Your task to perform on an android device: Open Android settings Image 0: 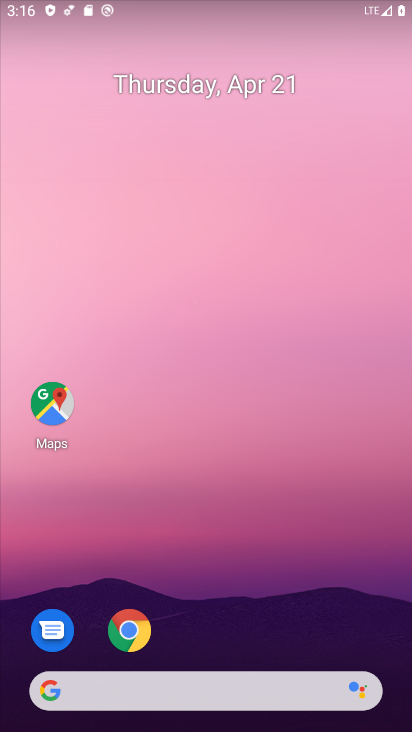
Step 0: drag from (243, 699) to (196, 330)
Your task to perform on an android device: Open Android settings Image 1: 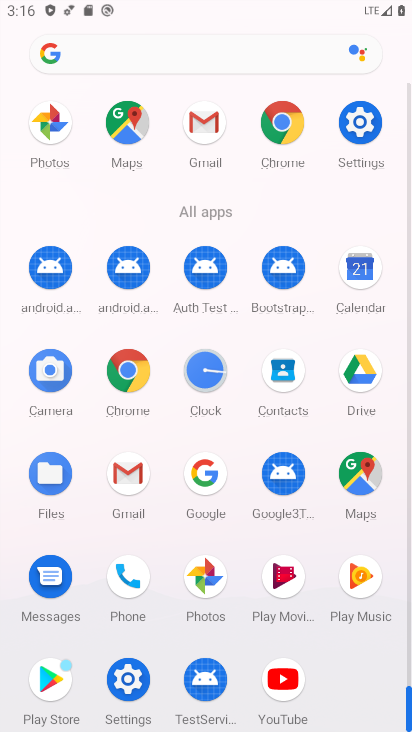
Step 1: click (130, 698)
Your task to perform on an android device: Open Android settings Image 2: 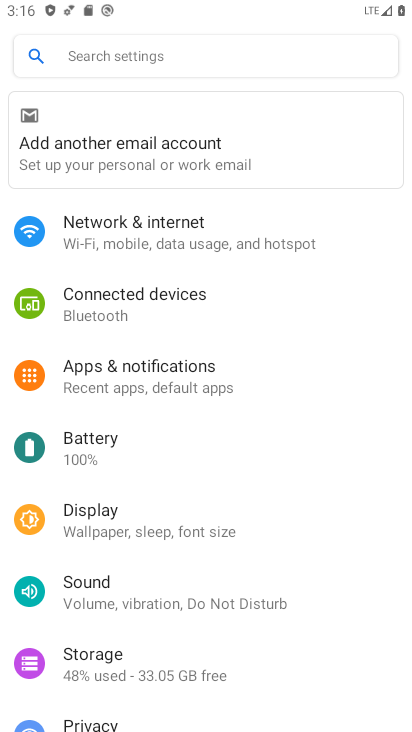
Step 2: drag from (102, 613) to (202, 257)
Your task to perform on an android device: Open Android settings Image 3: 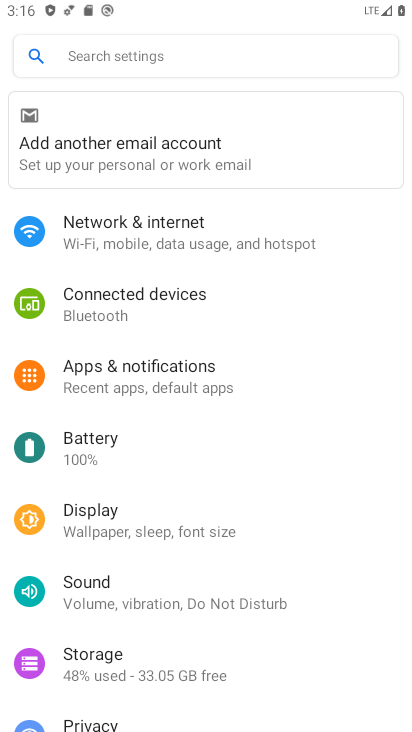
Step 3: drag from (124, 606) to (173, 273)
Your task to perform on an android device: Open Android settings Image 4: 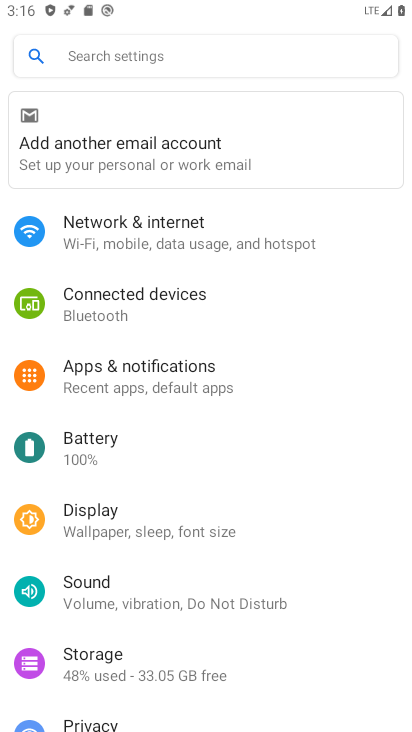
Step 4: drag from (145, 573) to (127, 321)
Your task to perform on an android device: Open Android settings Image 5: 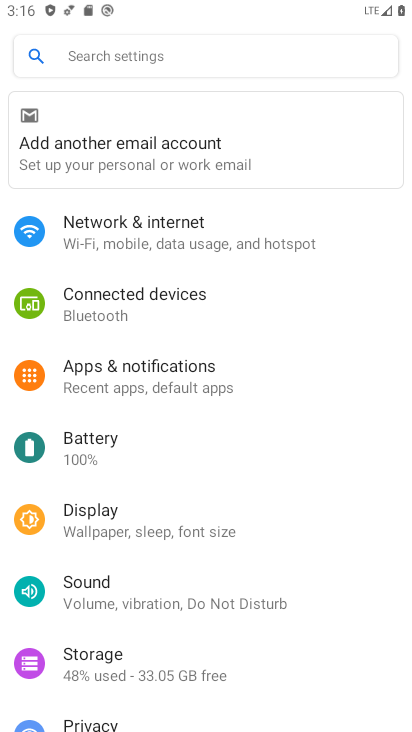
Step 5: drag from (160, 565) to (187, 307)
Your task to perform on an android device: Open Android settings Image 6: 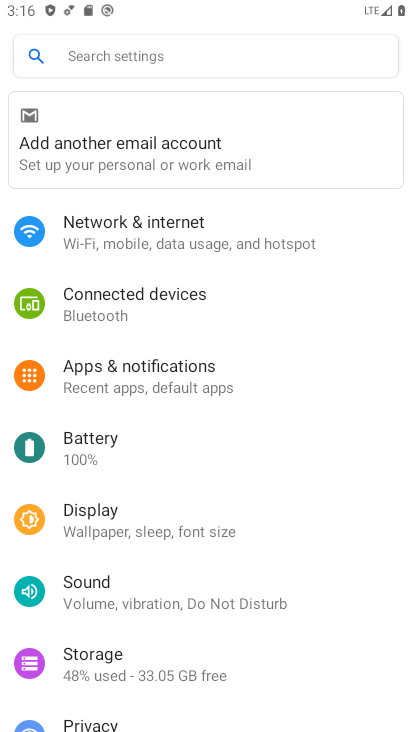
Step 6: drag from (200, 700) to (227, 440)
Your task to perform on an android device: Open Android settings Image 7: 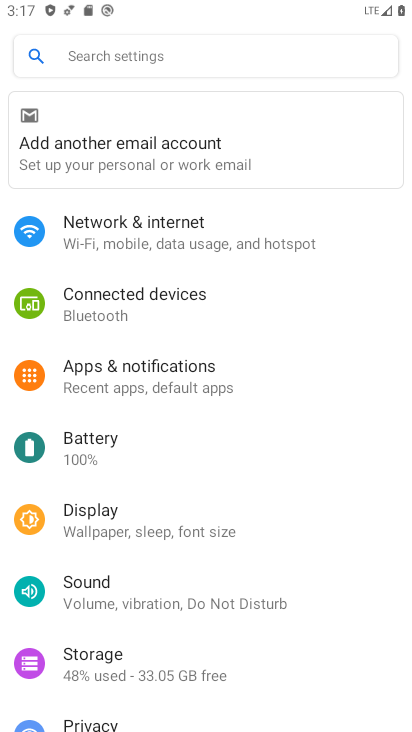
Step 7: drag from (236, 621) to (274, 193)
Your task to perform on an android device: Open Android settings Image 8: 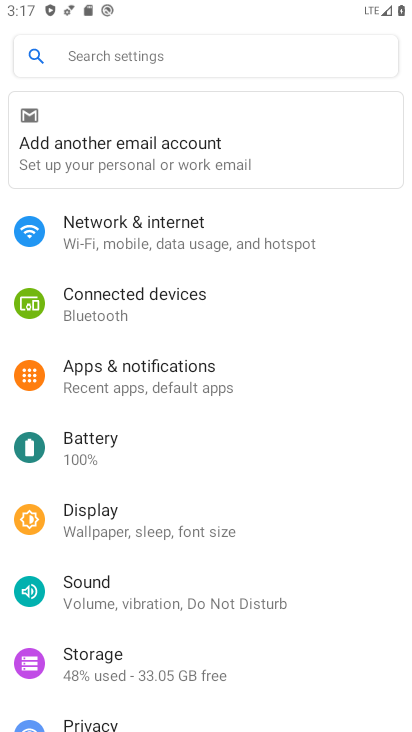
Step 8: drag from (349, 568) to (330, 186)
Your task to perform on an android device: Open Android settings Image 9: 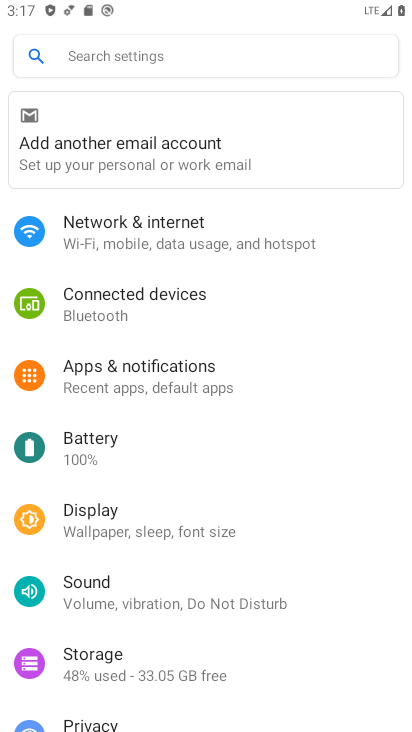
Step 9: click (313, 64)
Your task to perform on an android device: Open Android settings Image 10: 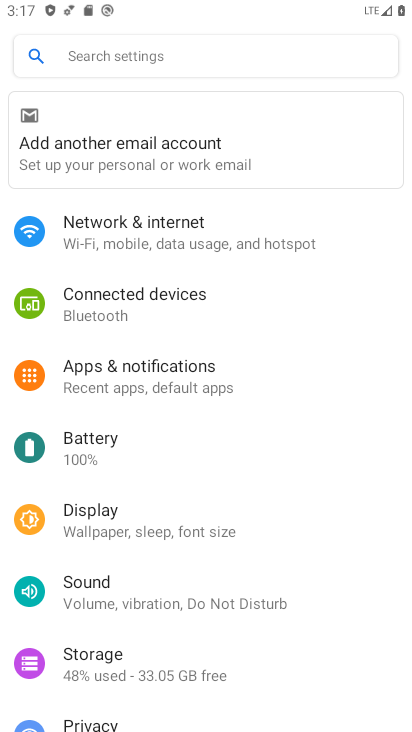
Step 10: drag from (205, 554) to (250, 150)
Your task to perform on an android device: Open Android settings Image 11: 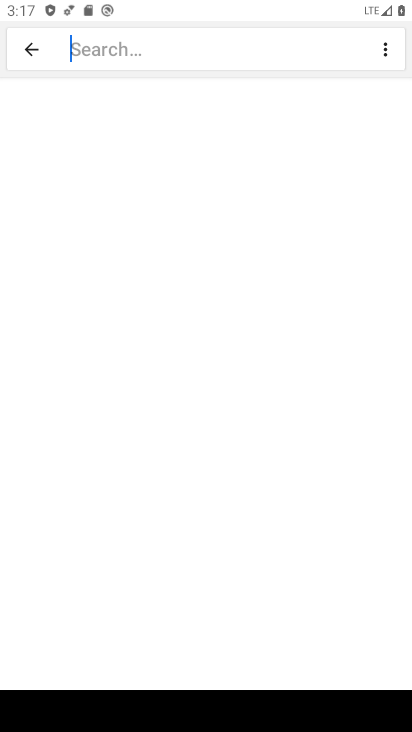
Step 11: click (26, 44)
Your task to perform on an android device: Open Android settings Image 12: 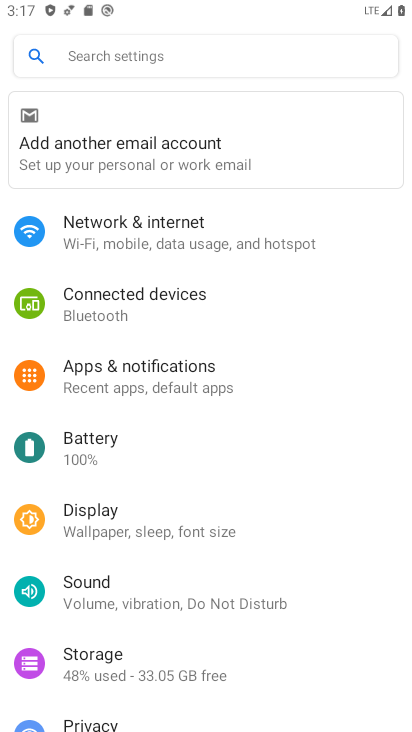
Step 12: task complete